Your task to perform on an android device: Search for "razer blade" on newegg.com, select the first entry, add it to the cart, then select checkout. Image 0: 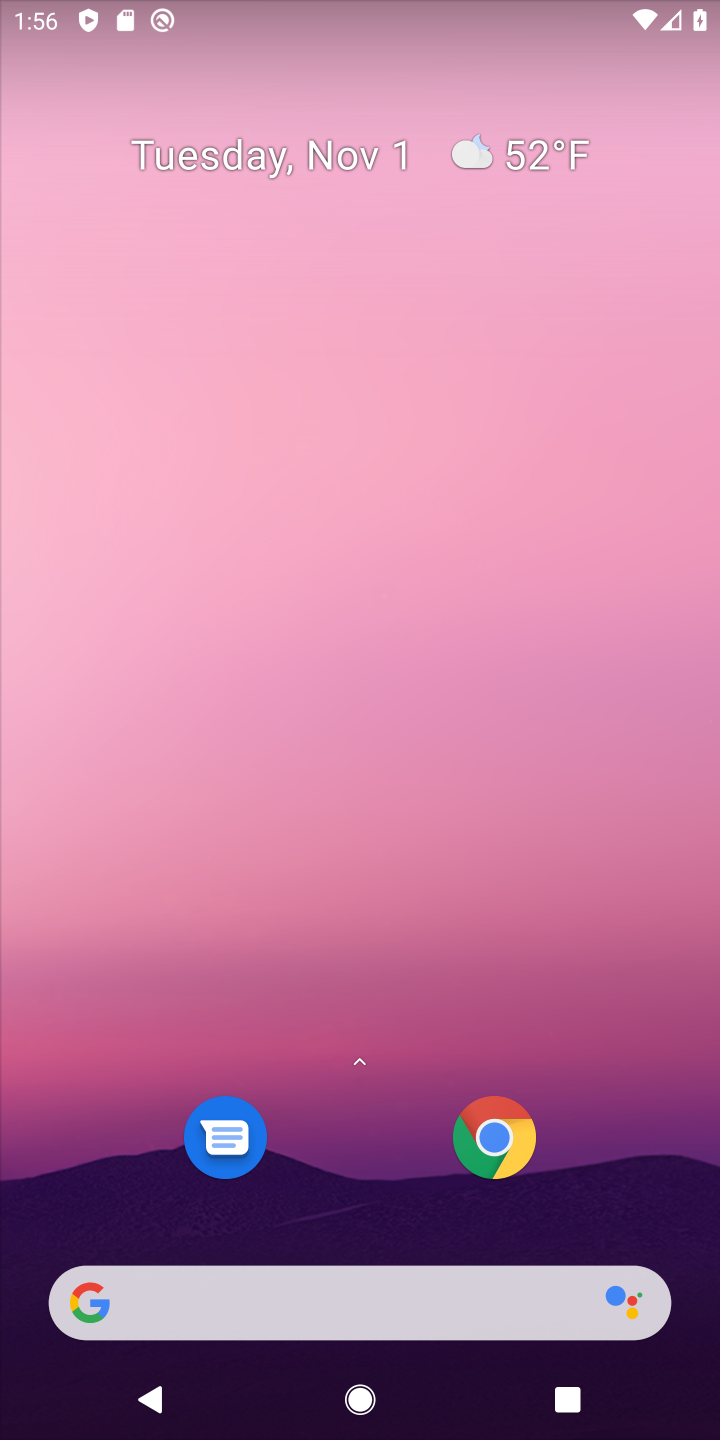
Step 0: click (338, 1320)
Your task to perform on an android device: Search for "razer blade" on newegg.com, select the first entry, add it to the cart, then select checkout. Image 1: 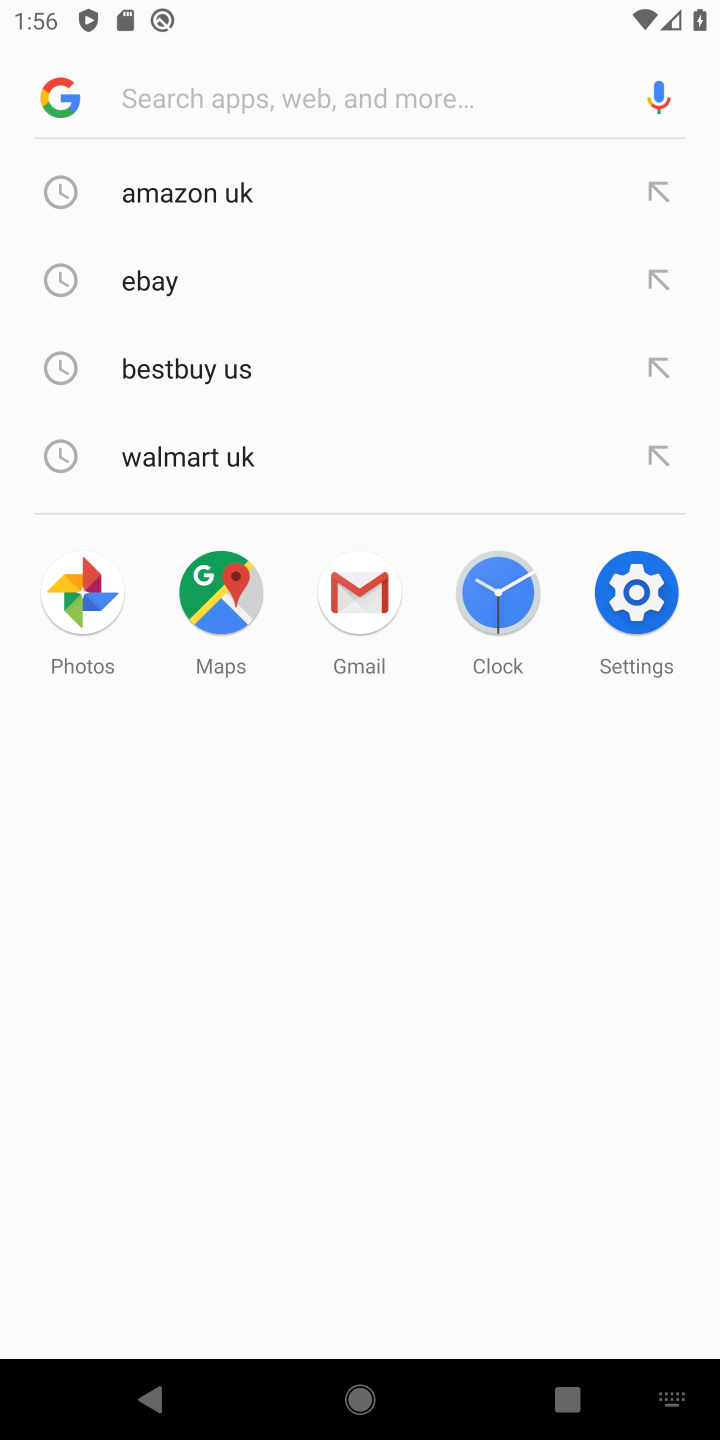
Step 1: type "newegg"
Your task to perform on an android device: Search for "razer blade" on newegg.com, select the first entry, add it to the cart, then select checkout. Image 2: 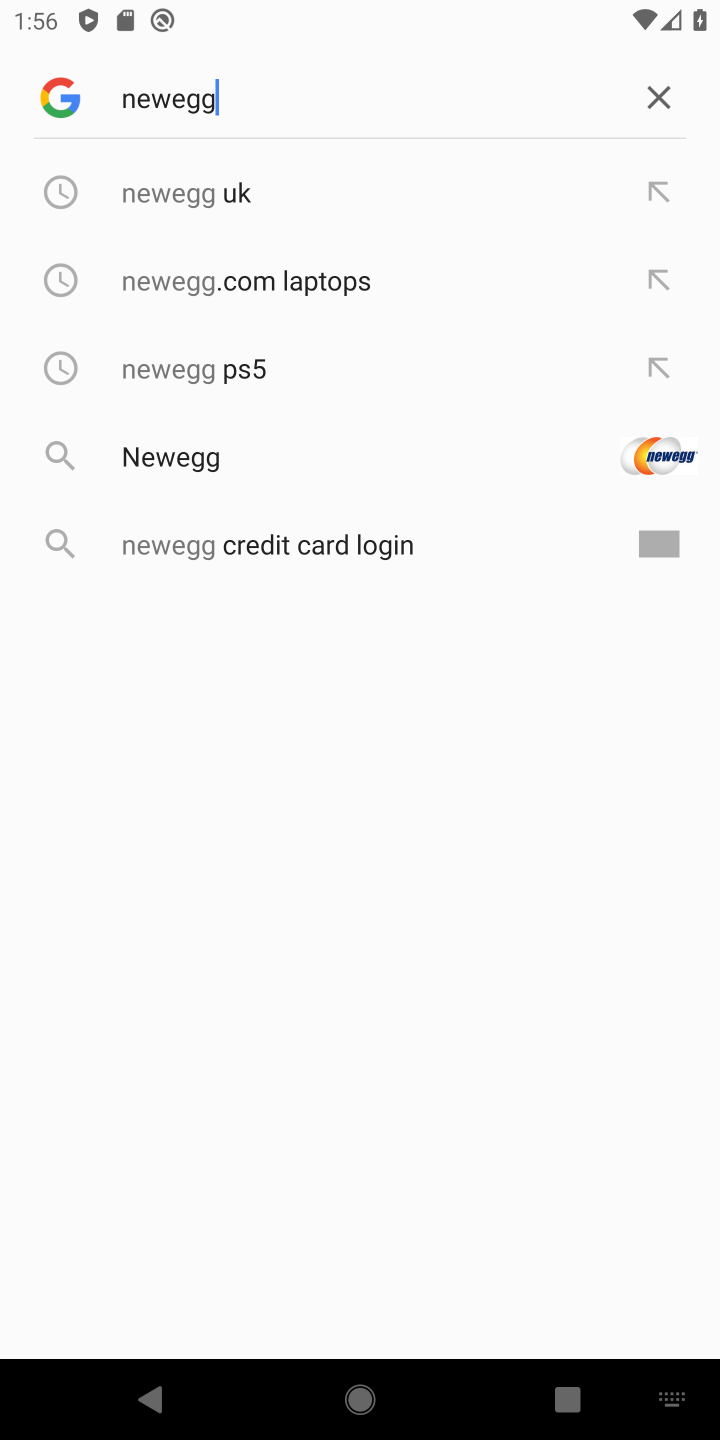
Step 2: click (219, 168)
Your task to perform on an android device: Search for "razer blade" on newegg.com, select the first entry, add it to the cart, then select checkout. Image 3: 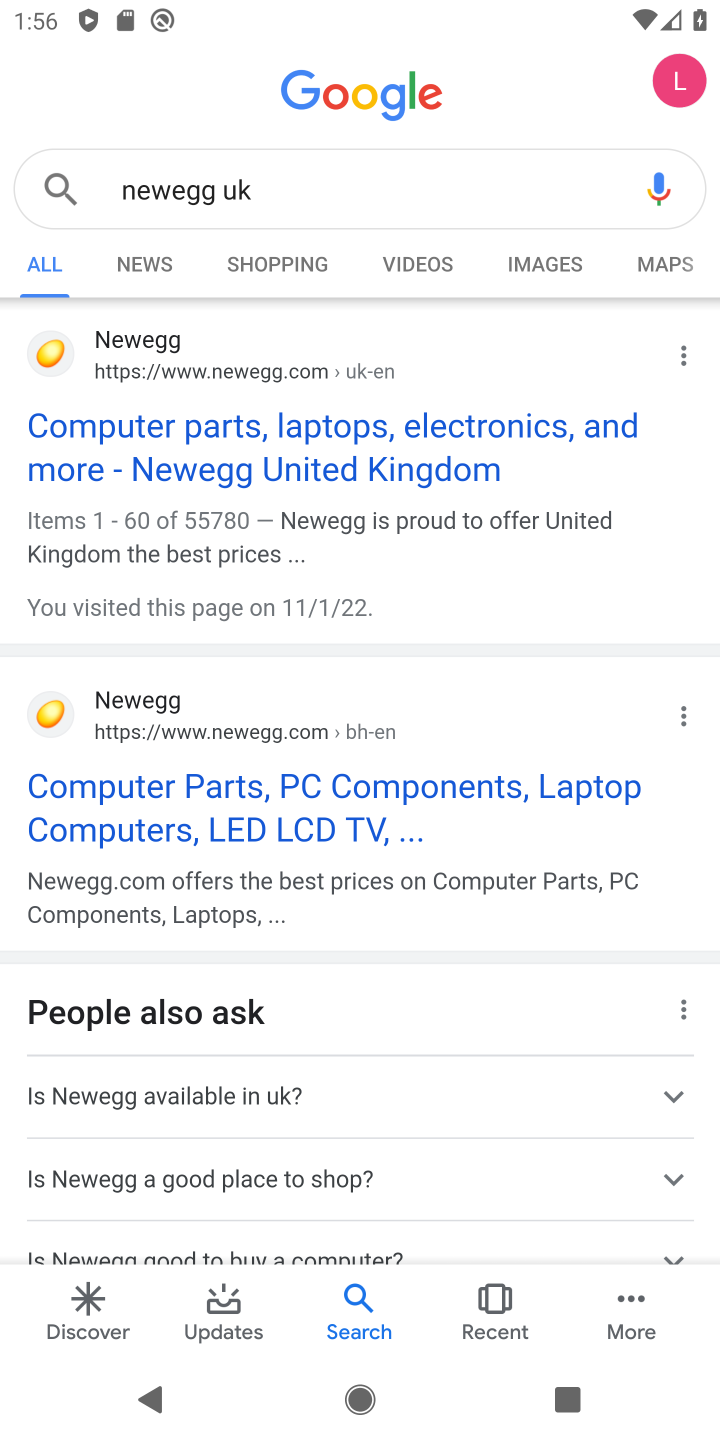
Step 3: click (303, 473)
Your task to perform on an android device: Search for "razer blade" on newegg.com, select the first entry, add it to the cart, then select checkout. Image 4: 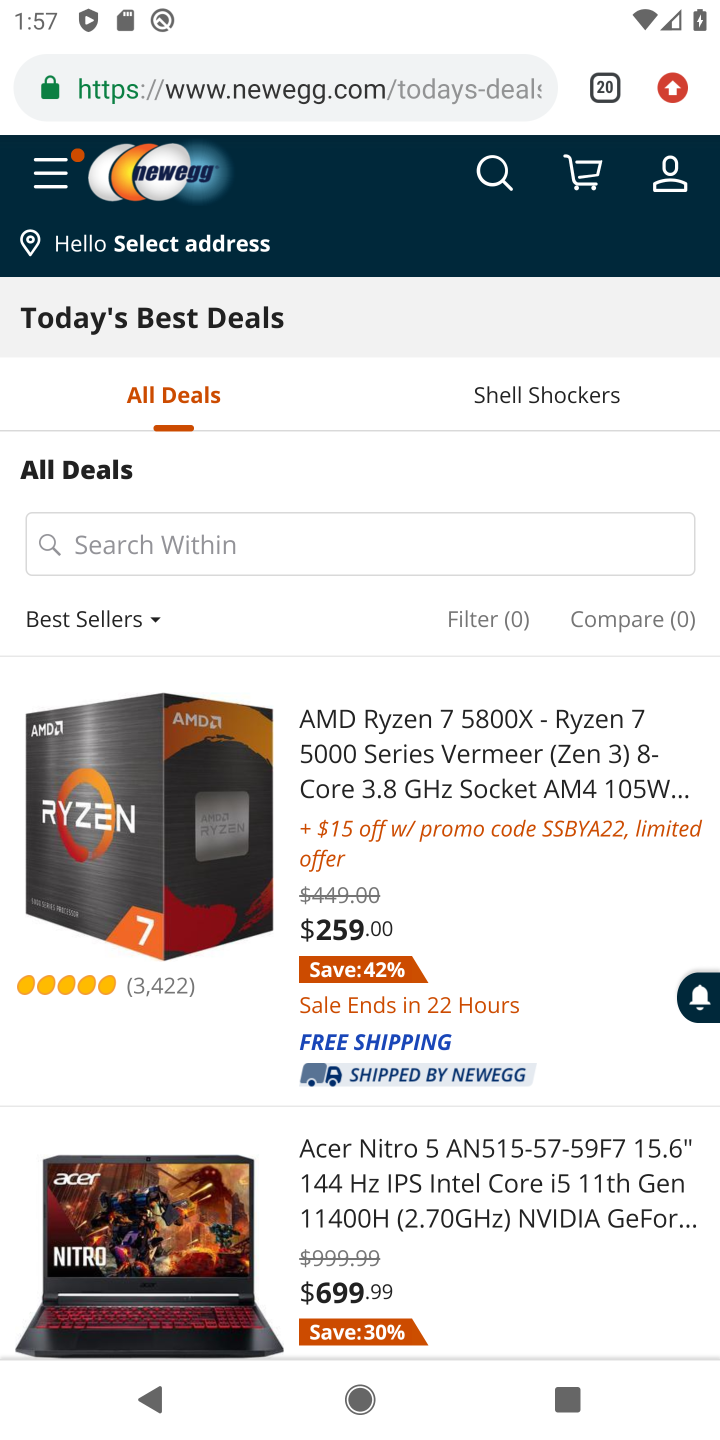
Step 4: click (270, 558)
Your task to perform on an android device: Search for "razer blade" on newegg.com, select the first entry, add it to the cart, then select checkout. Image 5: 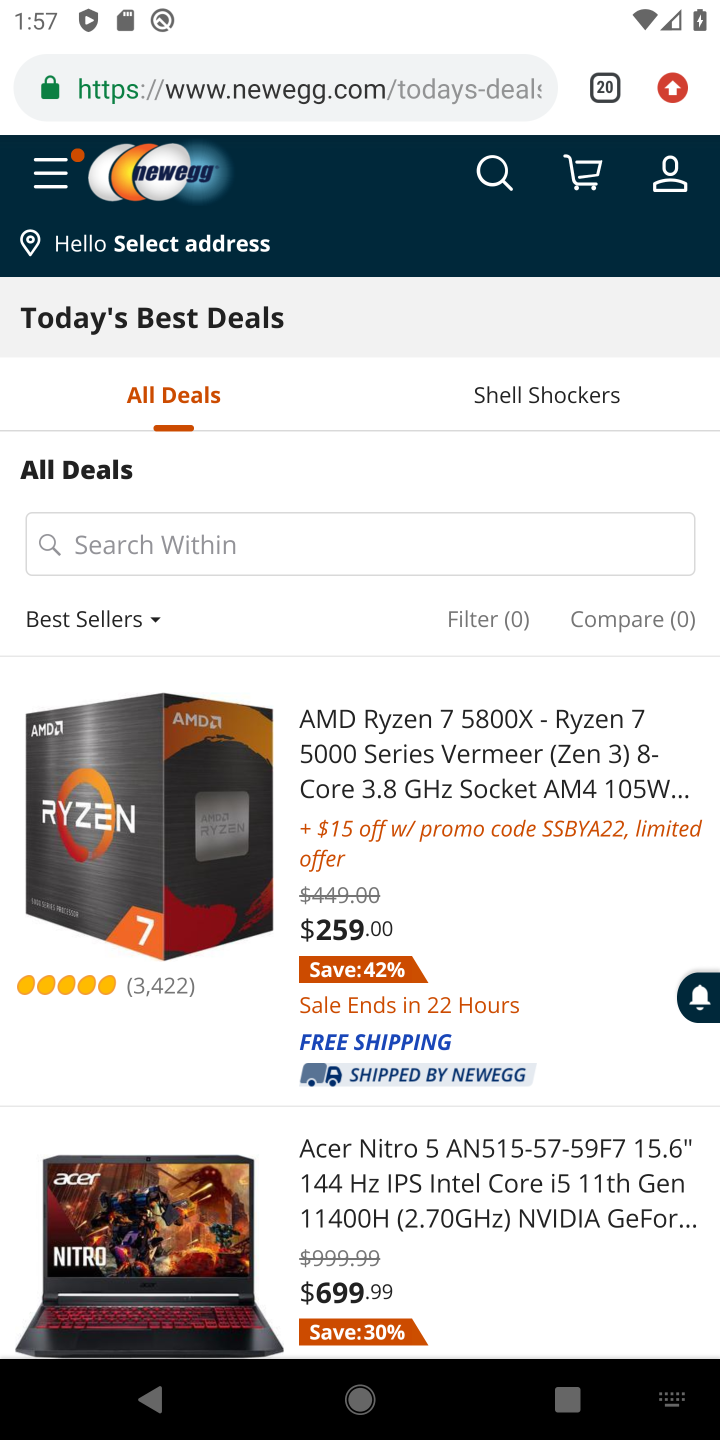
Step 5: click (470, 545)
Your task to perform on an android device: Search for "razer blade" on newegg.com, select the first entry, add it to the cart, then select checkout. Image 6: 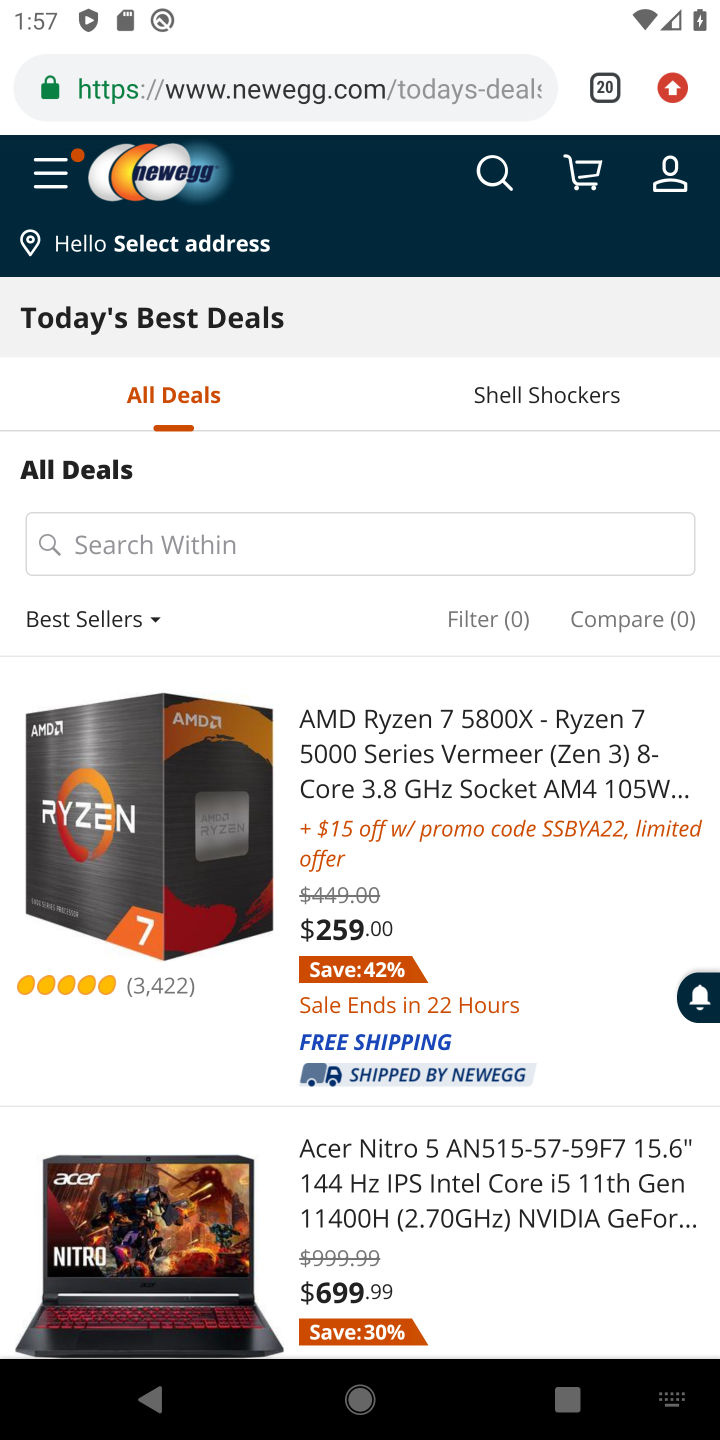
Step 6: click (470, 545)
Your task to perform on an android device: Search for "razer blade" on newegg.com, select the first entry, add it to the cart, then select checkout. Image 7: 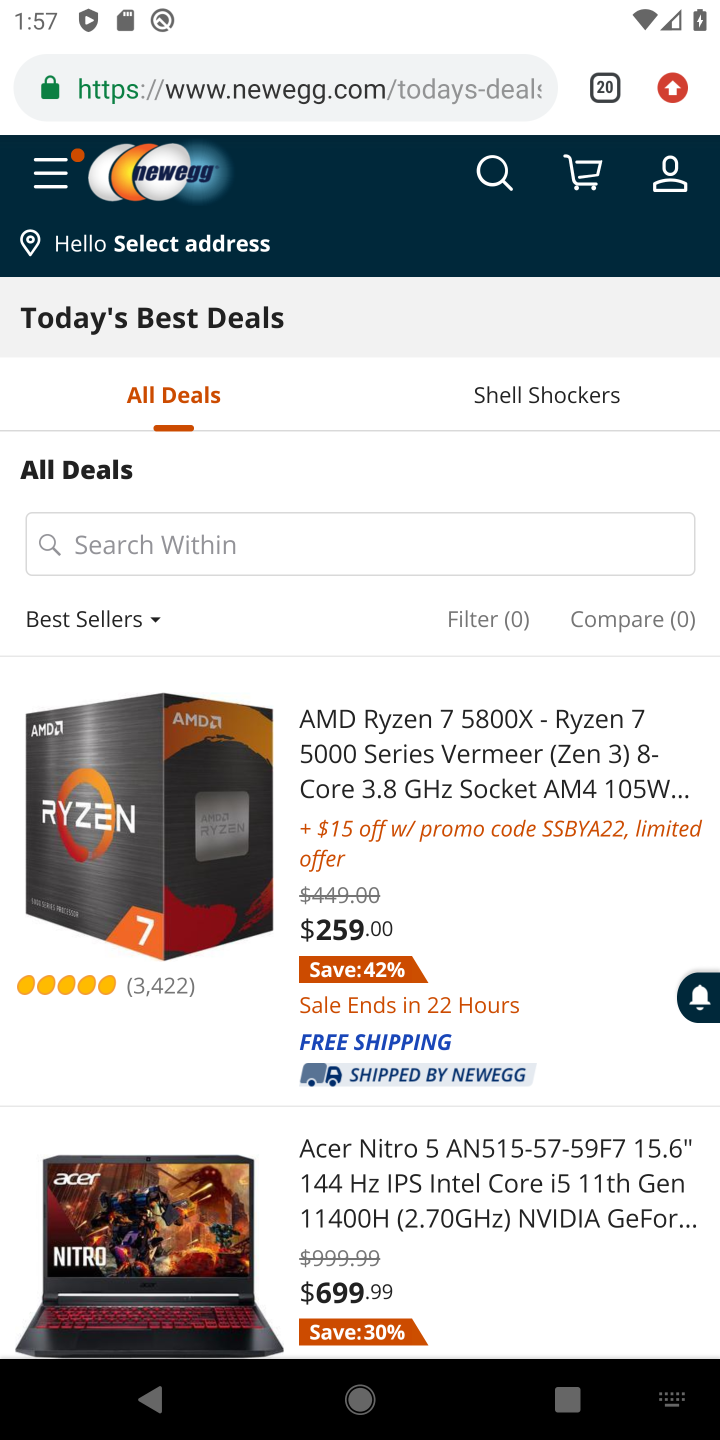
Step 7: type "razer blade"
Your task to perform on an android device: Search for "razer blade" on newegg.com, select the first entry, add it to the cart, then select checkout. Image 8: 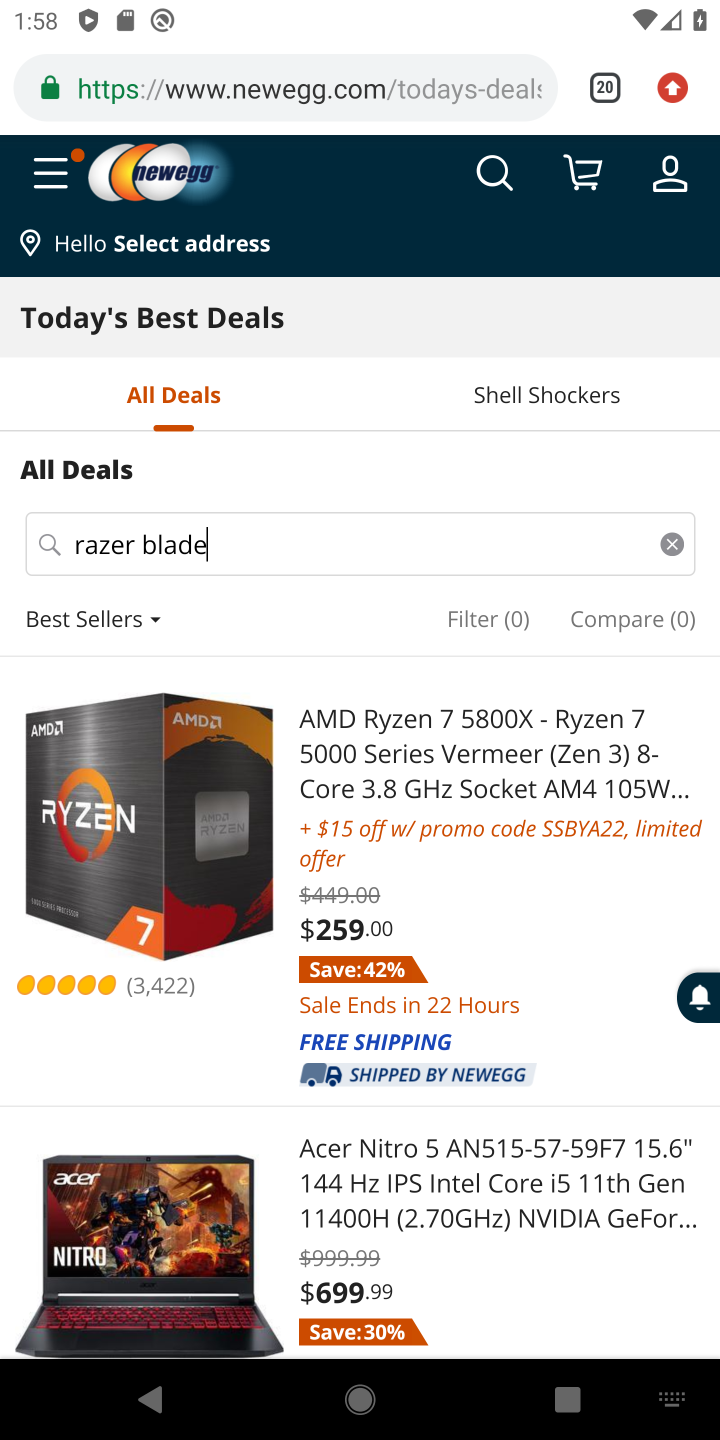
Step 8: task complete